Your task to perform on an android device: turn off notifications settings in the gmail app Image 0: 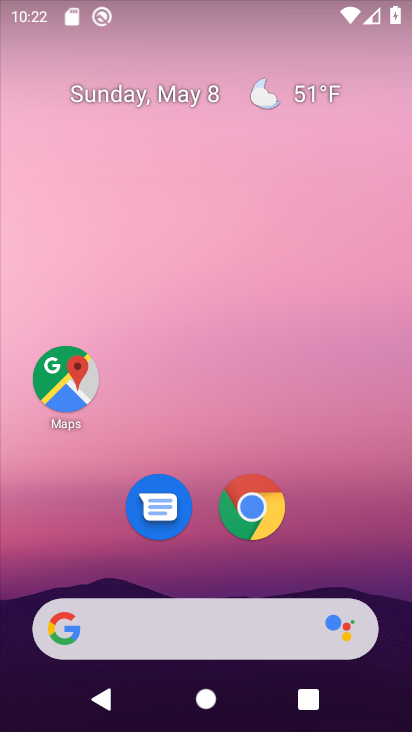
Step 0: drag from (205, 565) to (240, 82)
Your task to perform on an android device: turn off notifications settings in the gmail app Image 1: 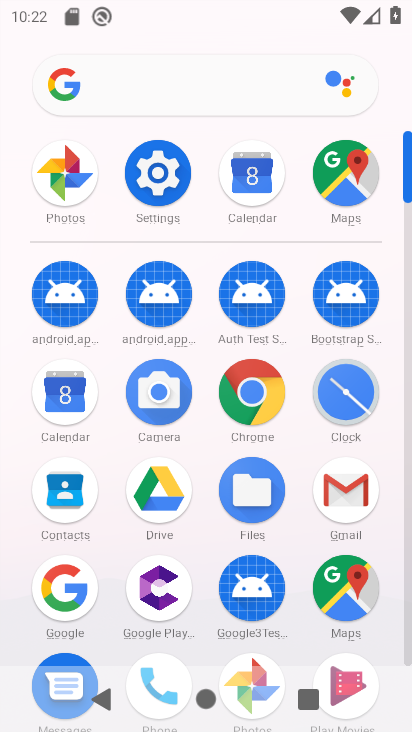
Step 1: click (345, 480)
Your task to perform on an android device: turn off notifications settings in the gmail app Image 2: 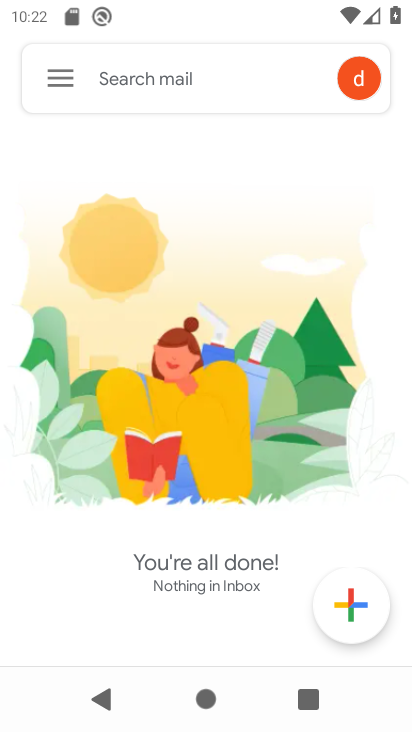
Step 2: click (59, 73)
Your task to perform on an android device: turn off notifications settings in the gmail app Image 3: 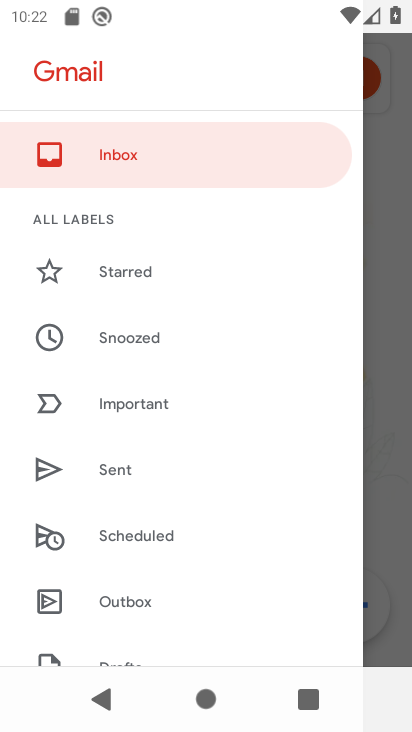
Step 3: drag from (189, 600) to (236, 107)
Your task to perform on an android device: turn off notifications settings in the gmail app Image 4: 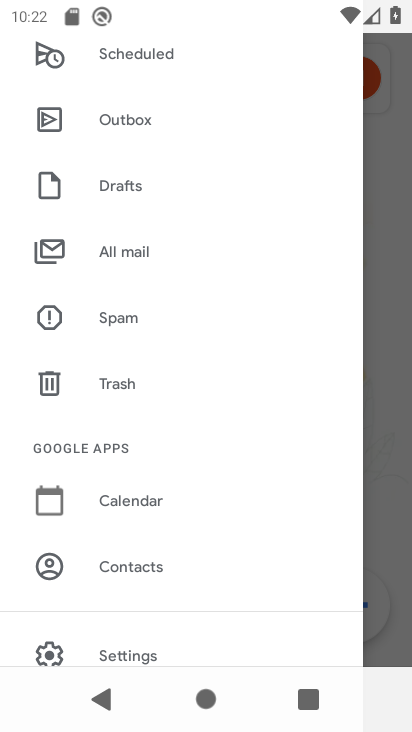
Step 4: click (173, 648)
Your task to perform on an android device: turn off notifications settings in the gmail app Image 5: 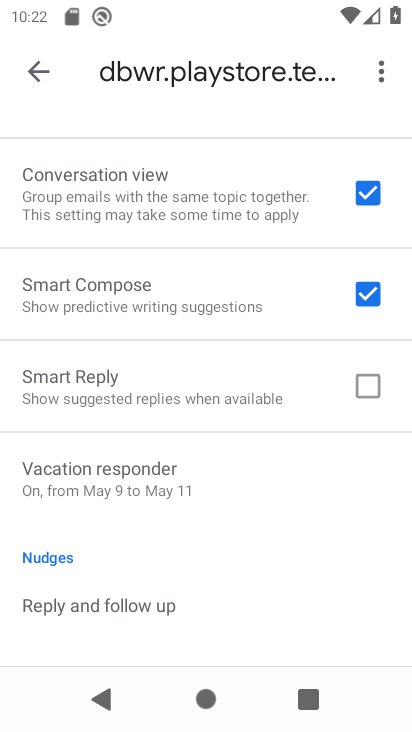
Step 5: click (38, 70)
Your task to perform on an android device: turn off notifications settings in the gmail app Image 6: 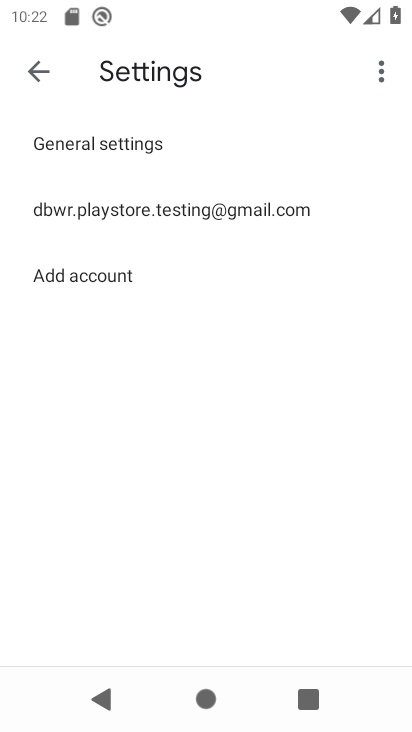
Step 6: click (168, 144)
Your task to perform on an android device: turn off notifications settings in the gmail app Image 7: 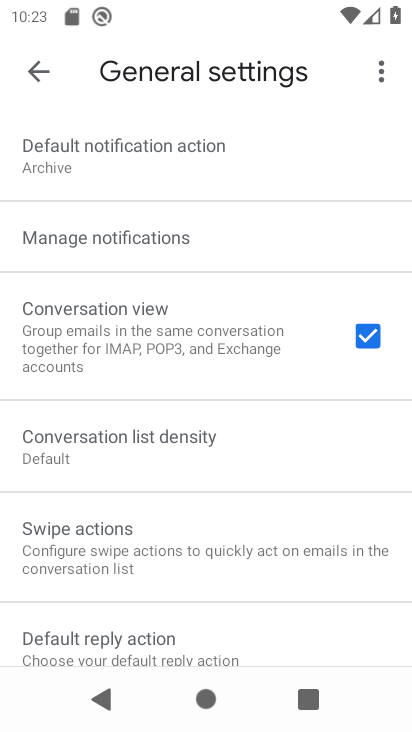
Step 7: click (203, 230)
Your task to perform on an android device: turn off notifications settings in the gmail app Image 8: 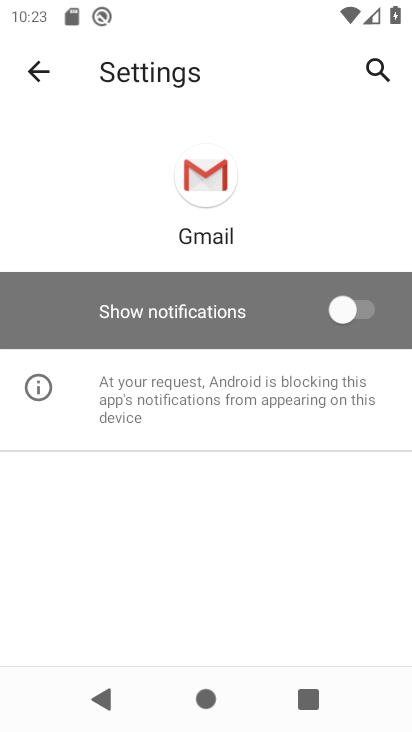
Step 8: task complete